Your task to perform on an android device: Go to settings Image 0: 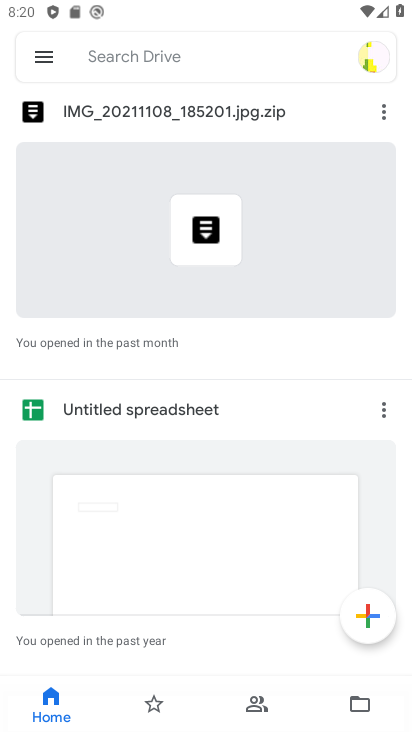
Step 0: press back button
Your task to perform on an android device: Go to settings Image 1: 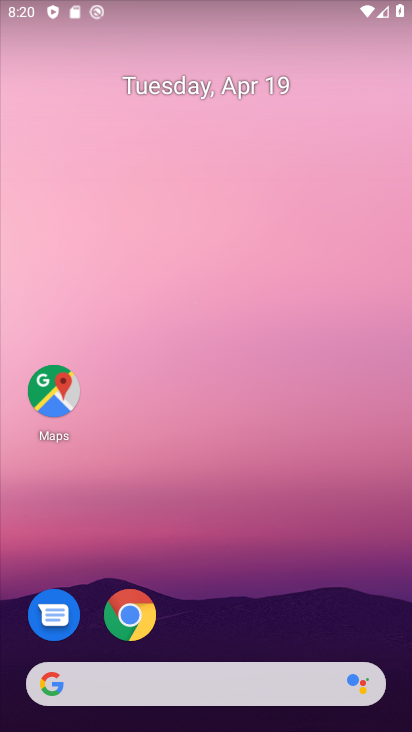
Step 1: drag from (296, 335) to (275, 49)
Your task to perform on an android device: Go to settings Image 2: 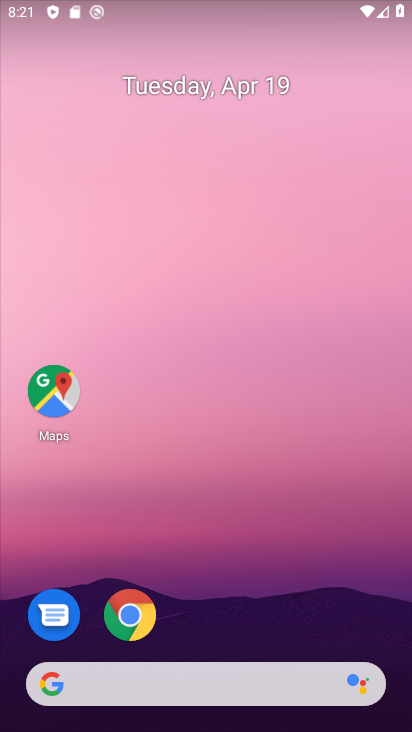
Step 2: drag from (408, 696) to (262, 3)
Your task to perform on an android device: Go to settings Image 3: 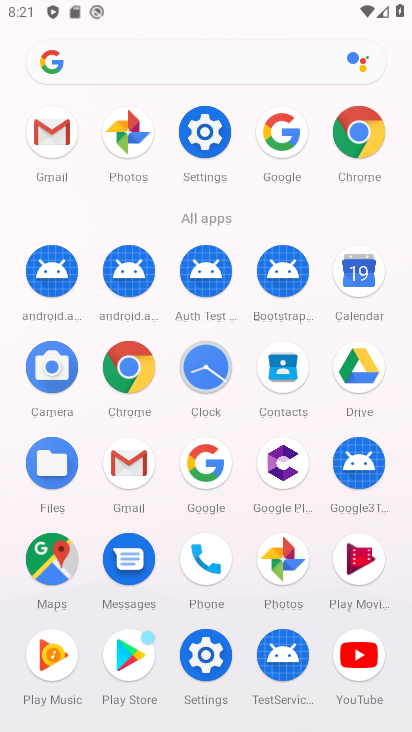
Step 3: click (201, 653)
Your task to perform on an android device: Go to settings Image 4: 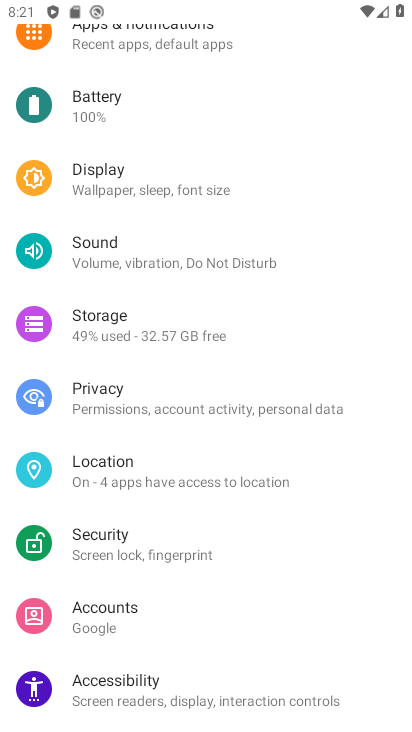
Step 4: task complete